Your task to perform on an android device: turn off airplane mode Image 0: 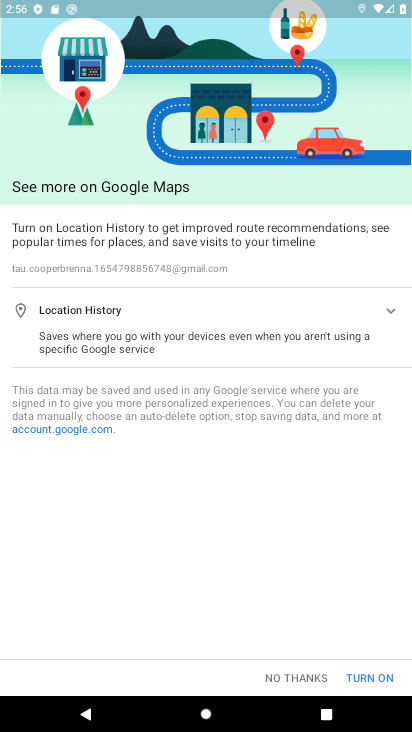
Step 0: press home button
Your task to perform on an android device: turn off airplane mode Image 1: 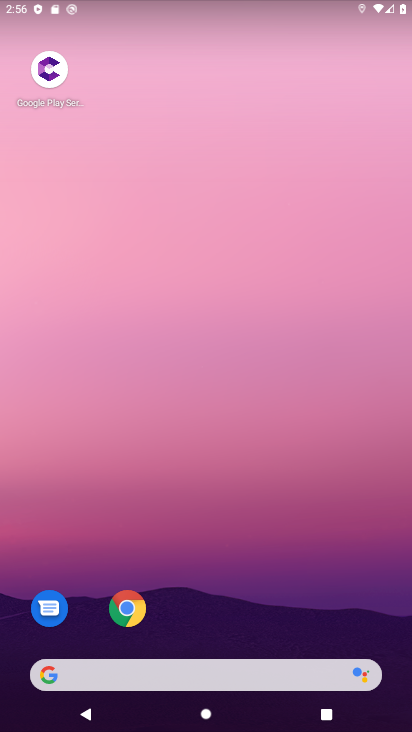
Step 1: task complete